Your task to perform on an android device: open the mobile data screen to see how much data has been used Image 0: 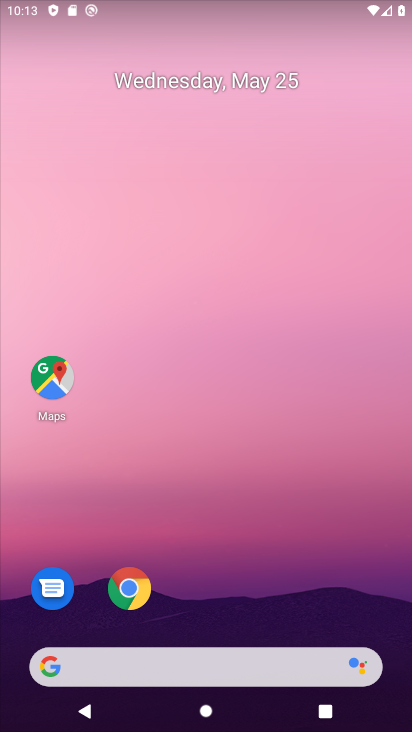
Step 0: drag from (297, 588) to (322, 177)
Your task to perform on an android device: open the mobile data screen to see how much data has been used Image 1: 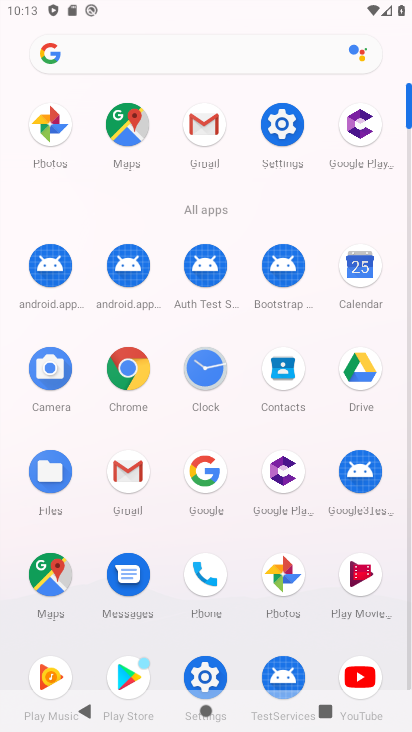
Step 1: click (288, 141)
Your task to perform on an android device: open the mobile data screen to see how much data has been used Image 2: 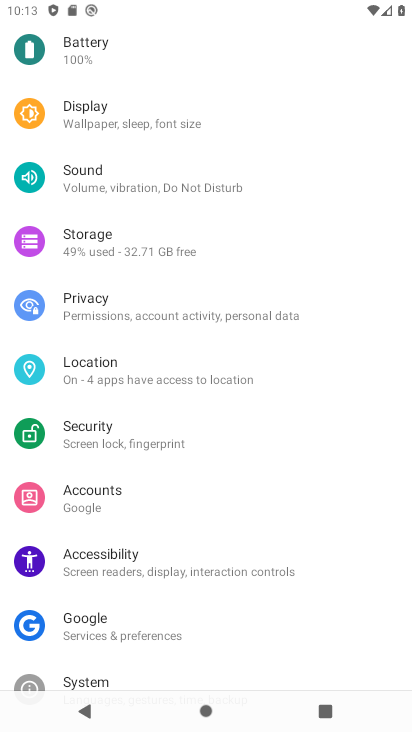
Step 2: drag from (215, 135) to (155, 593)
Your task to perform on an android device: open the mobile data screen to see how much data has been used Image 3: 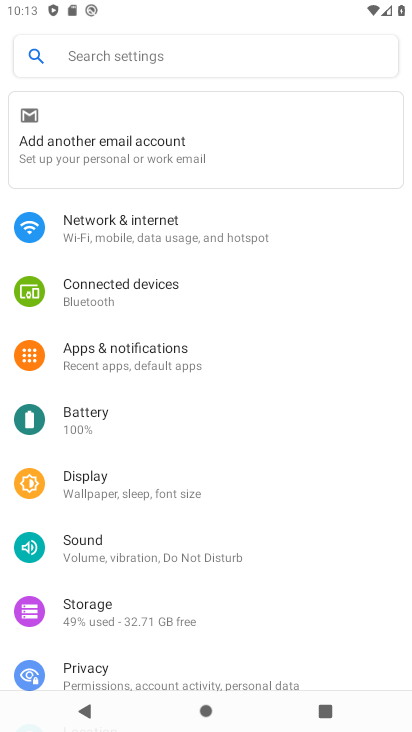
Step 3: click (188, 241)
Your task to perform on an android device: open the mobile data screen to see how much data has been used Image 4: 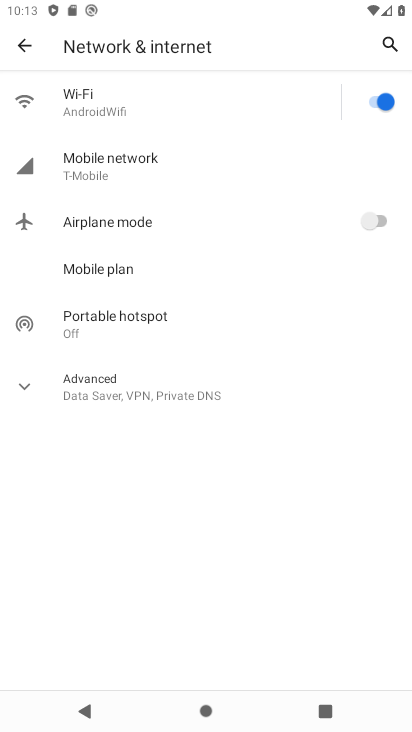
Step 4: click (170, 163)
Your task to perform on an android device: open the mobile data screen to see how much data has been used Image 5: 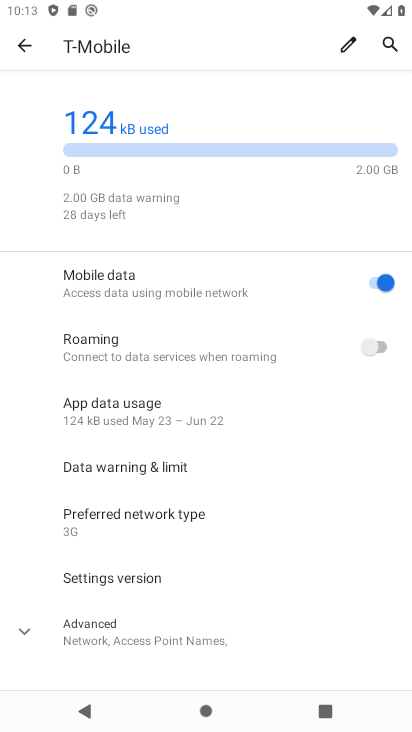
Step 5: task complete